Your task to perform on an android device: toggle location history Image 0: 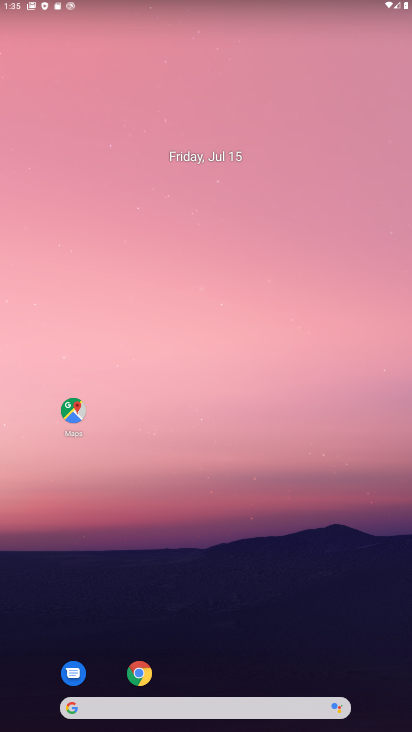
Step 0: drag from (373, 684) to (282, 142)
Your task to perform on an android device: toggle location history Image 1: 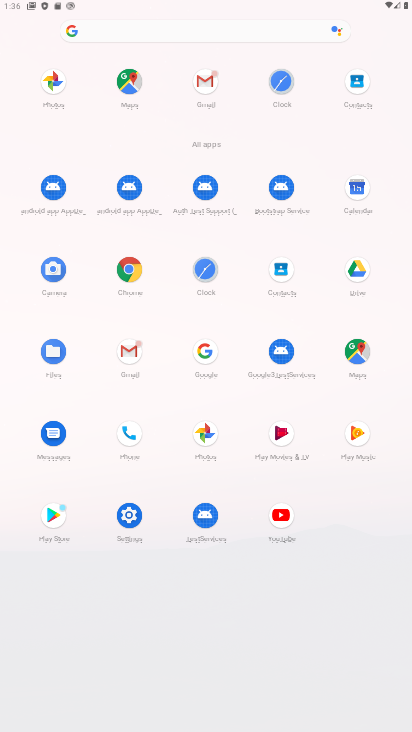
Step 1: click (139, 519)
Your task to perform on an android device: toggle location history Image 2: 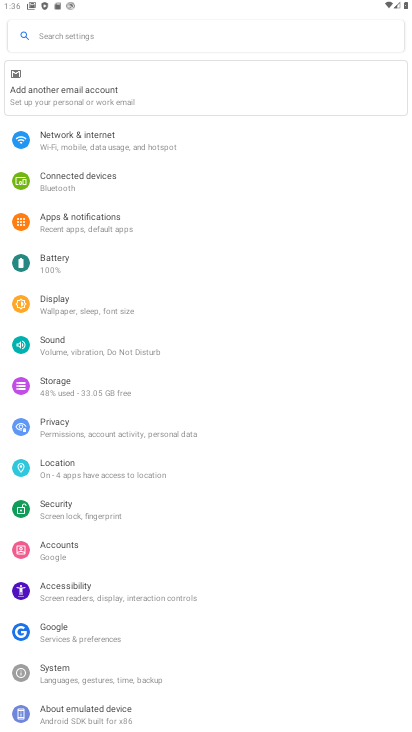
Step 2: click (64, 464)
Your task to perform on an android device: toggle location history Image 3: 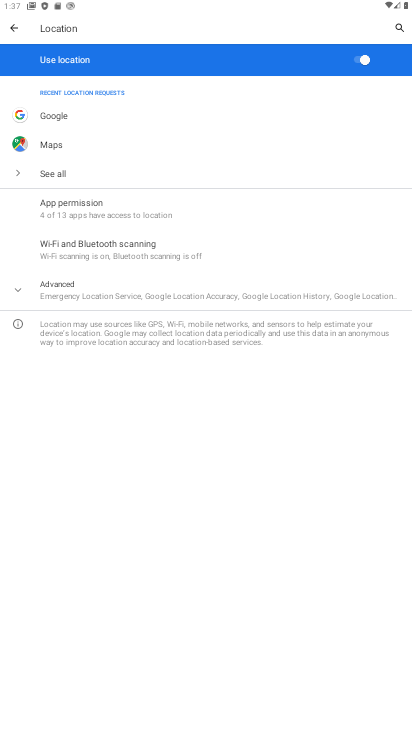
Step 3: task complete